Your task to perform on an android device: change the clock display to analog Image 0: 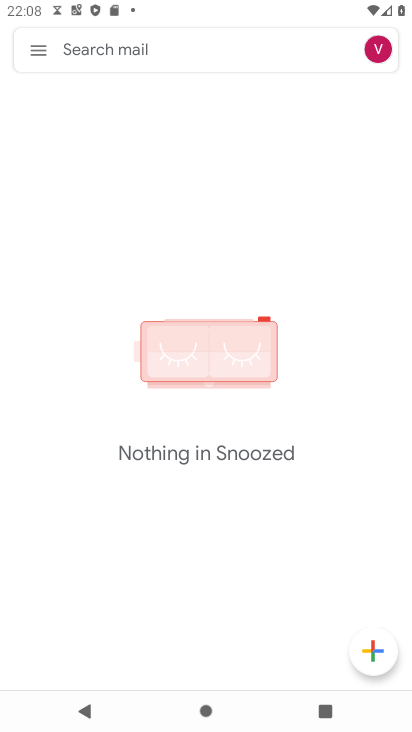
Step 0: press home button
Your task to perform on an android device: change the clock display to analog Image 1: 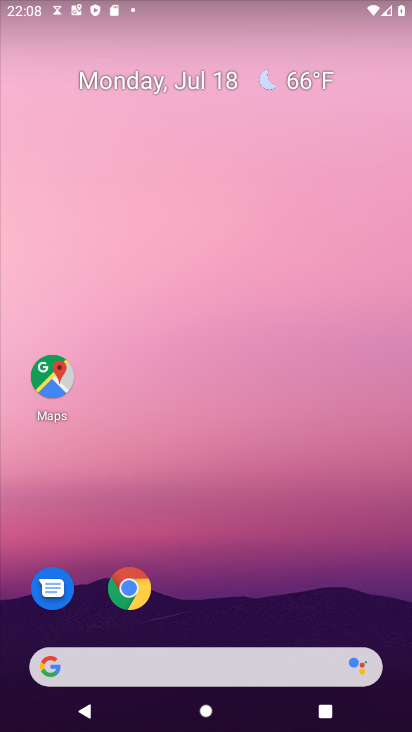
Step 1: drag from (169, 668) to (370, 57)
Your task to perform on an android device: change the clock display to analog Image 2: 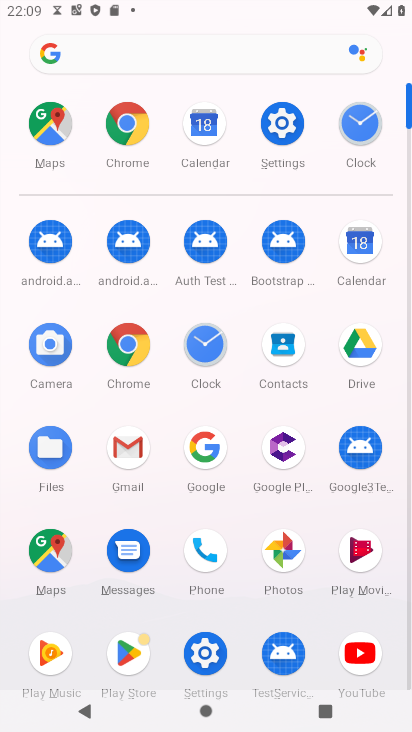
Step 2: click (202, 344)
Your task to perform on an android device: change the clock display to analog Image 3: 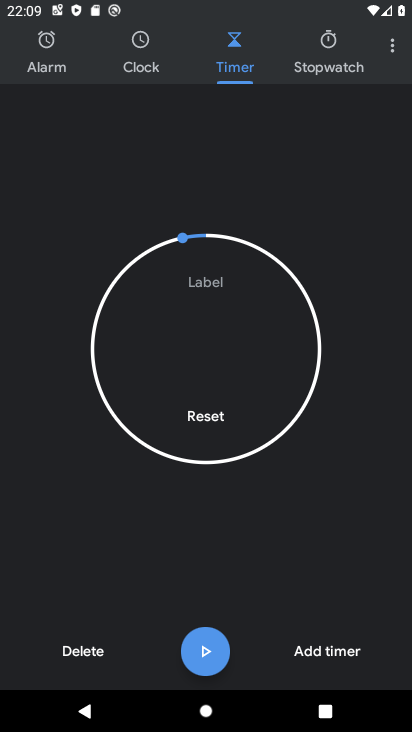
Step 3: click (388, 48)
Your task to perform on an android device: change the clock display to analog Image 4: 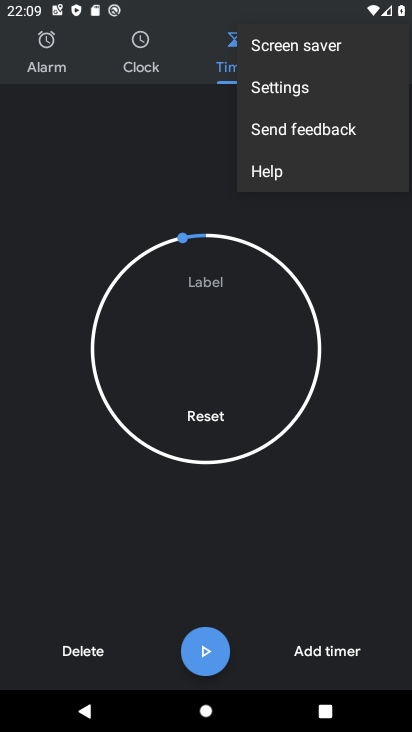
Step 4: click (264, 95)
Your task to perform on an android device: change the clock display to analog Image 5: 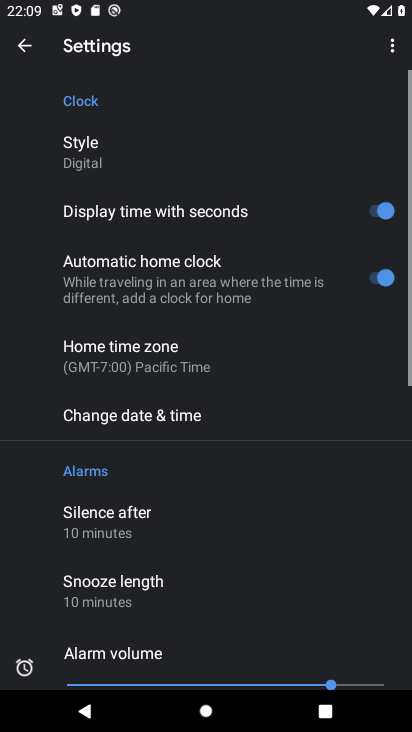
Step 5: click (100, 152)
Your task to perform on an android device: change the clock display to analog Image 6: 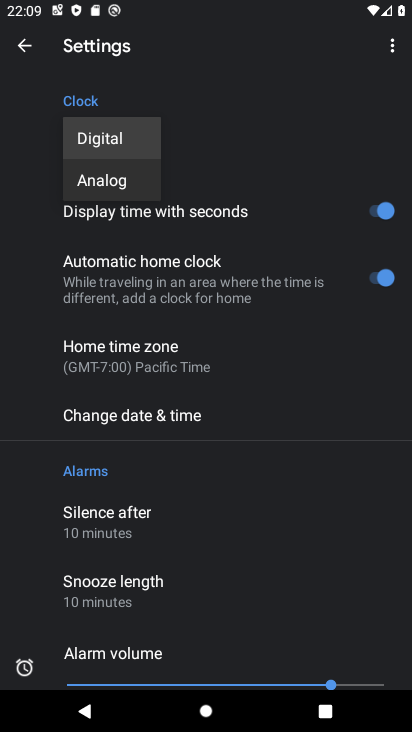
Step 6: click (94, 186)
Your task to perform on an android device: change the clock display to analog Image 7: 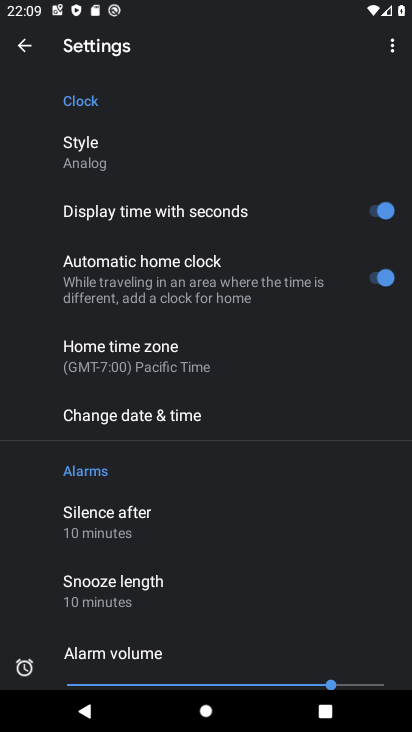
Step 7: task complete